Your task to perform on an android device: Open the calendar and show me this week's events? Image 0: 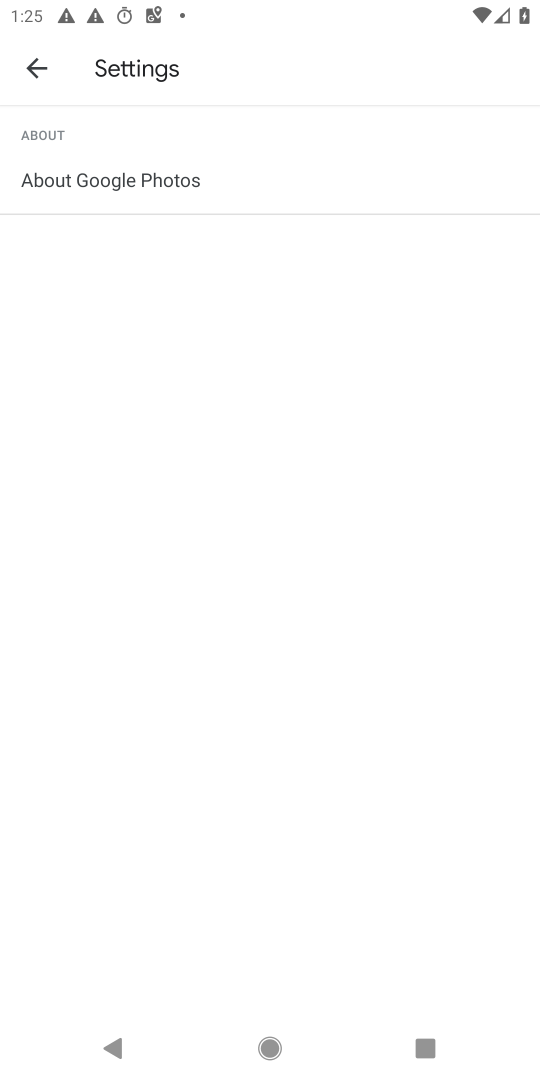
Step 0: press home button
Your task to perform on an android device: Open the calendar and show me this week's events? Image 1: 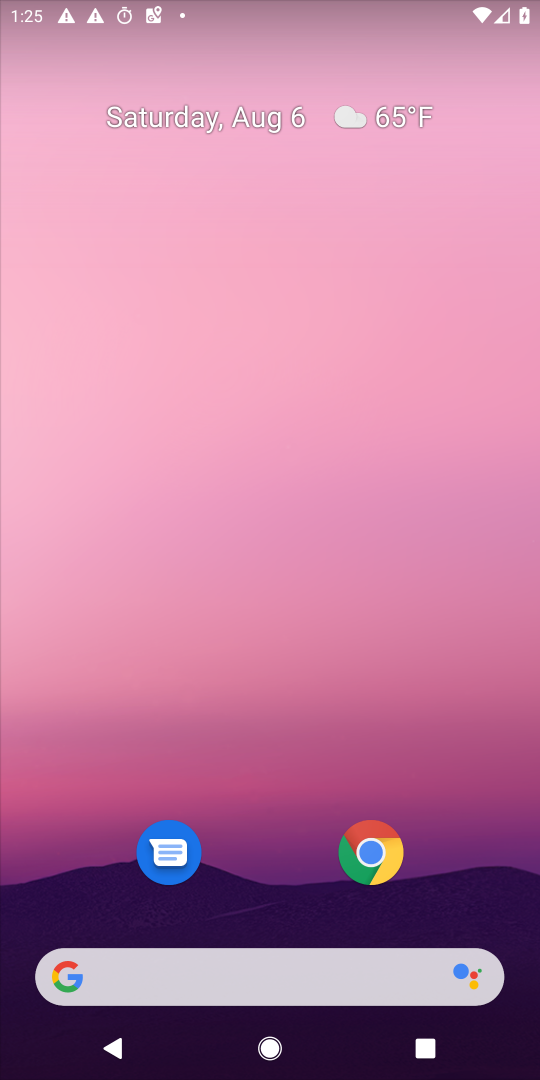
Step 1: drag from (333, 972) to (173, 82)
Your task to perform on an android device: Open the calendar and show me this week's events? Image 2: 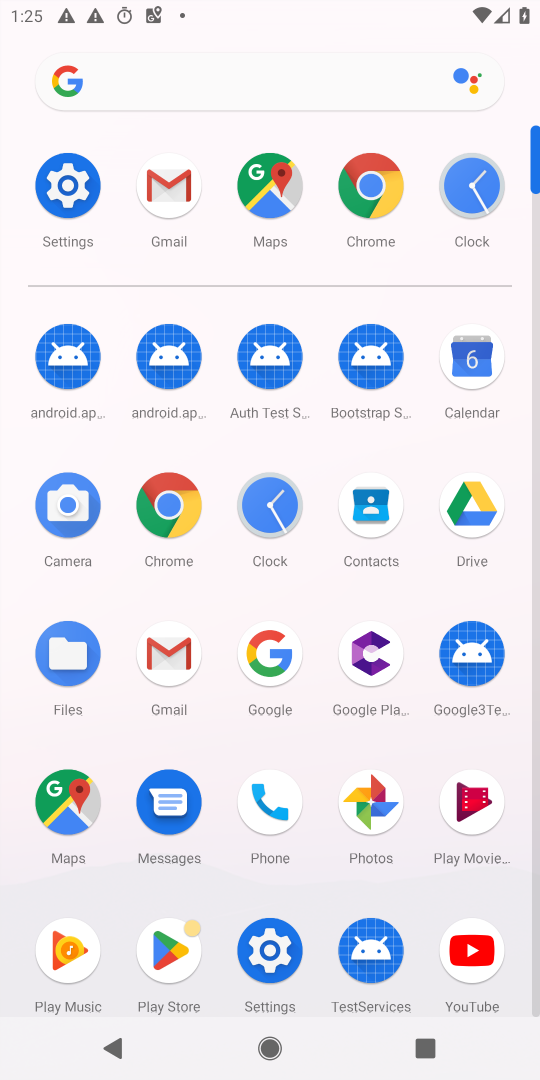
Step 2: click (475, 366)
Your task to perform on an android device: Open the calendar and show me this week's events? Image 3: 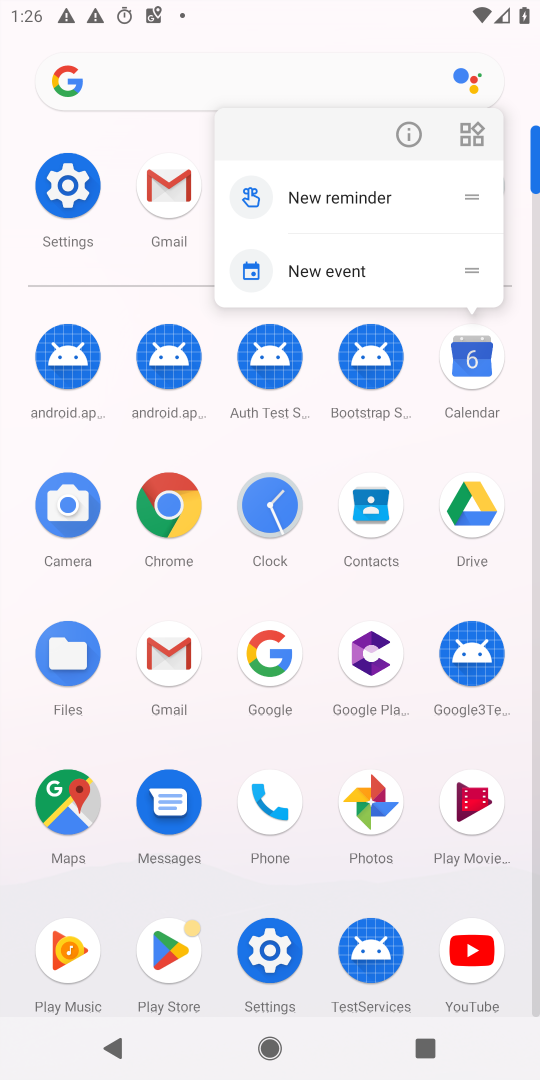
Step 3: click (474, 367)
Your task to perform on an android device: Open the calendar and show me this week's events? Image 4: 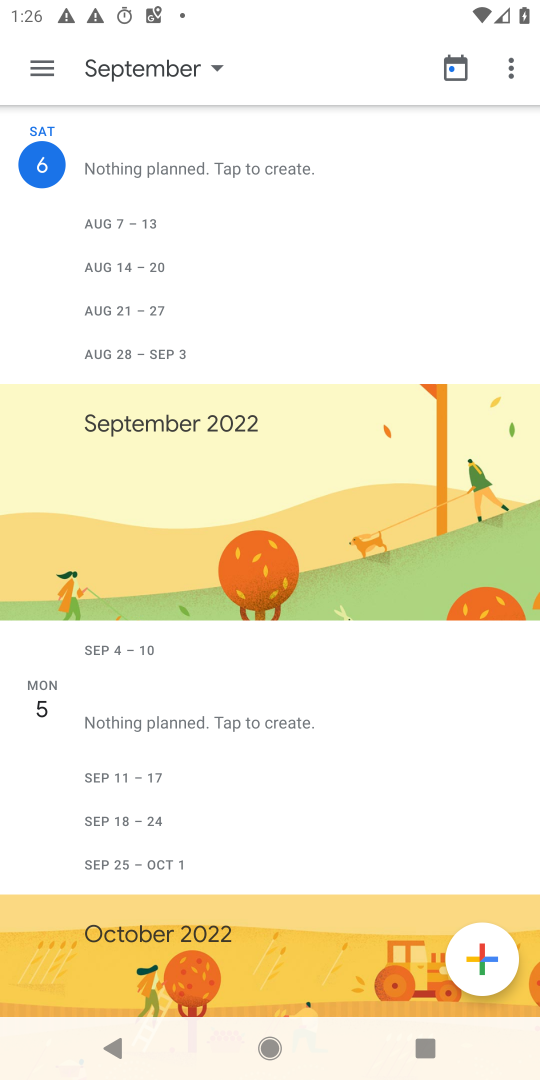
Step 4: click (52, 78)
Your task to perform on an android device: Open the calendar and show me this week's events? Image 5: 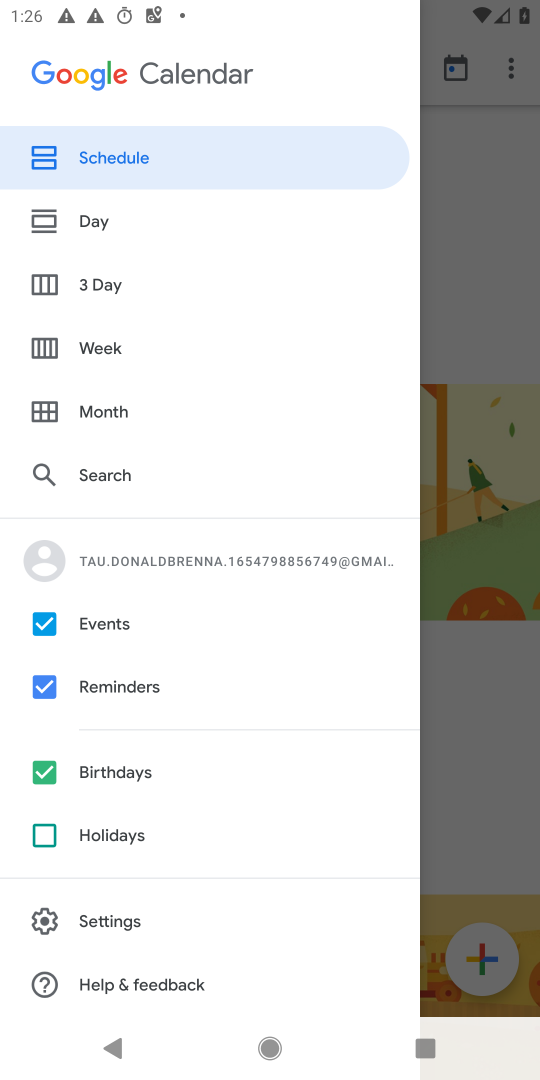
Step 5: click (102, 346)
Your task to perform on an android device: Open the calendar and show me this week's events? Image 6: 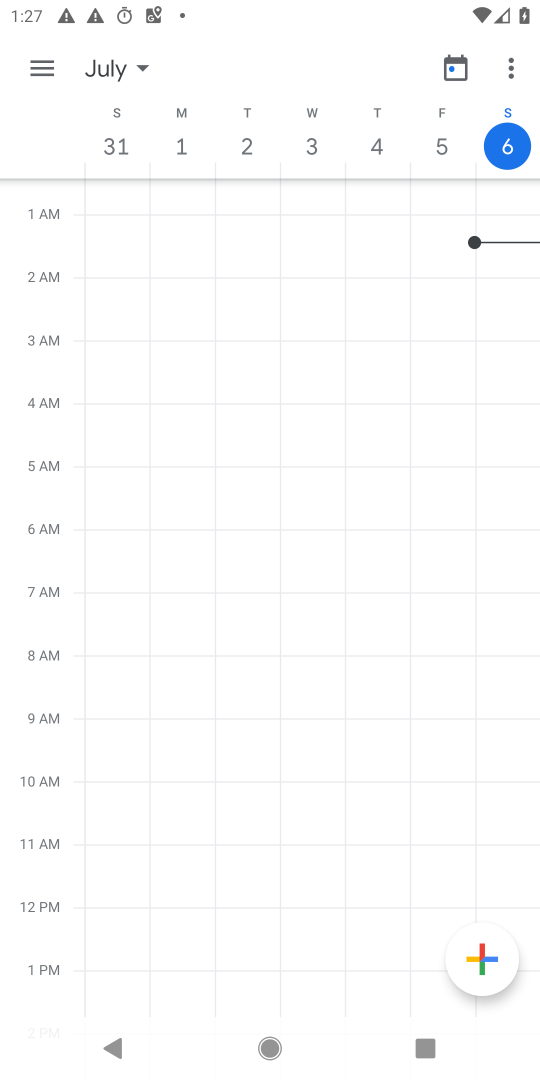
Step 6: task complete